Your task to perform on an android device: Search for the best rated 4k tvs on Walmart. Image 0: 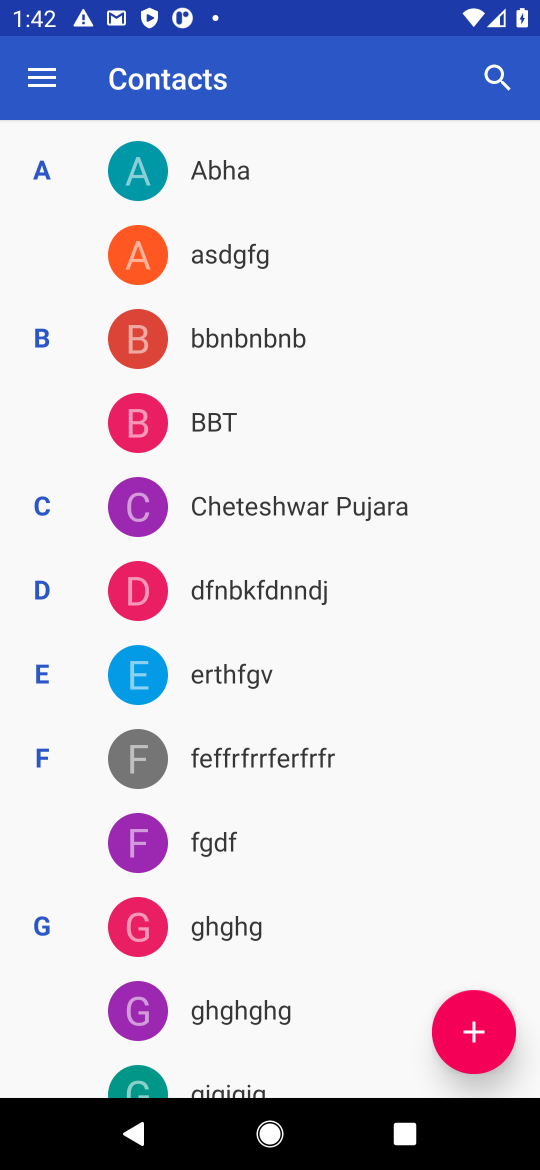
Step 0: press home button
Your task to perform on an android device: Search for the best rated 4k tvs on Walmart. Image 1: 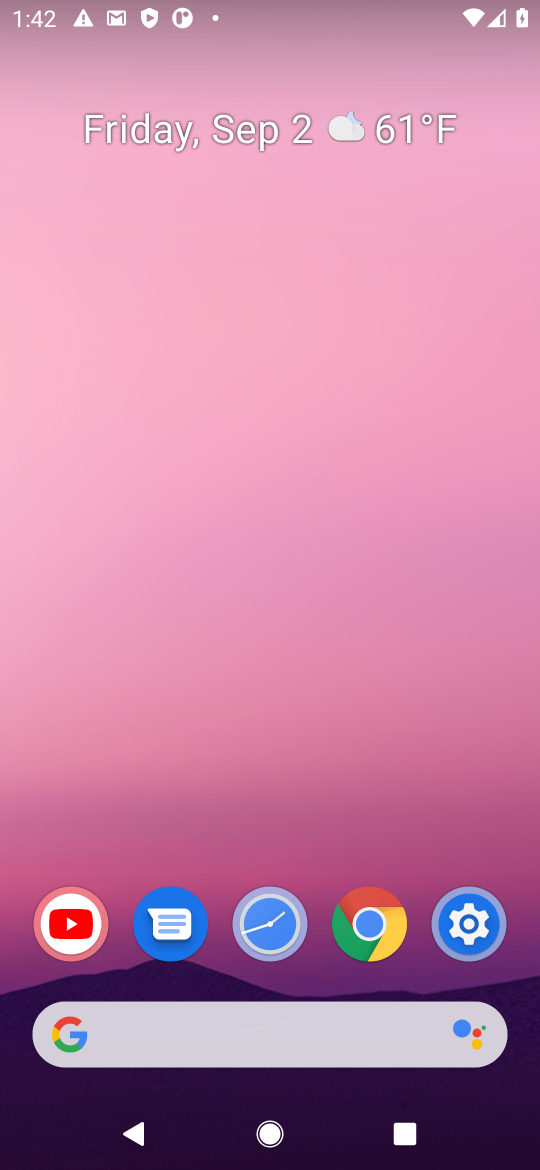
Step 1: click (398, 1033)
Your task to perform on an android device: Search for the best rated 4k tvs on Walmart. Image 2: 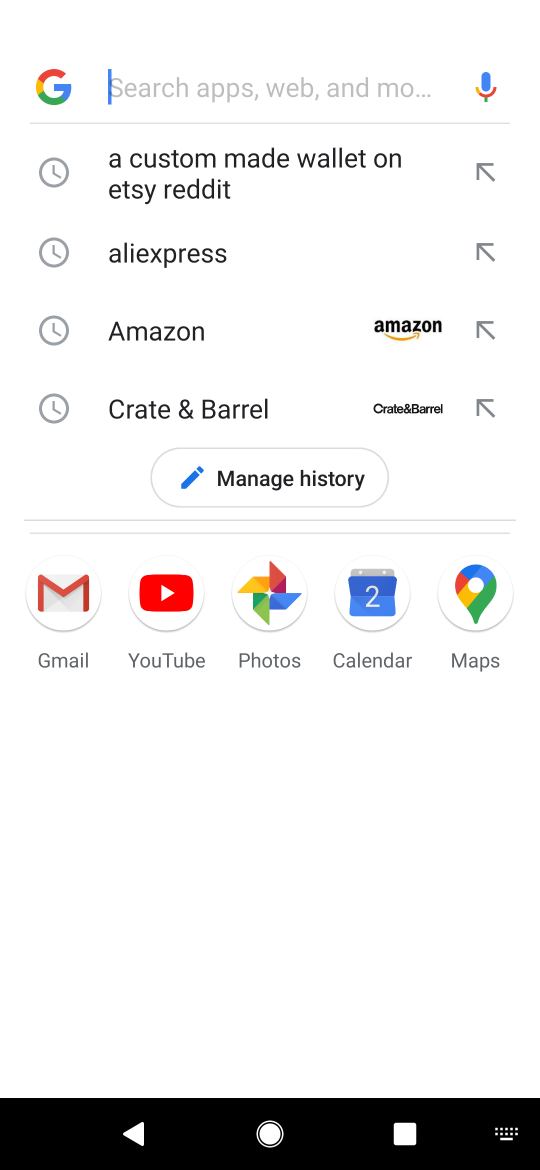
Step 2: press enter
Your task to perform on an android device: Search for the best rated 4k tvs on Walmart. Image 3: 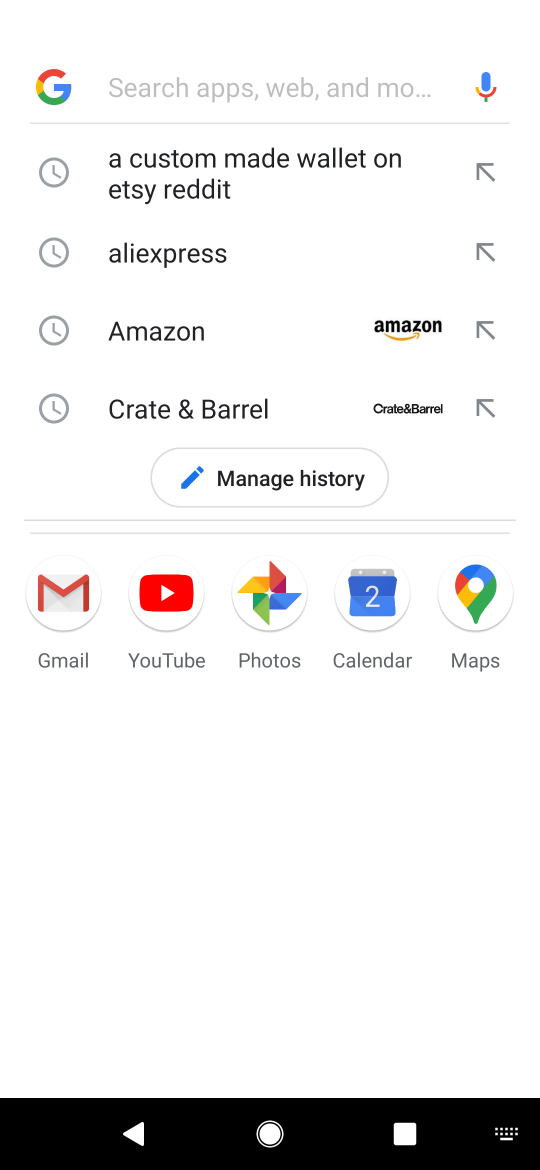
Step 3: type "walmart"
Your task to perform on an android device: Search for the best rated 4k tvs on Walmart. Image 4: 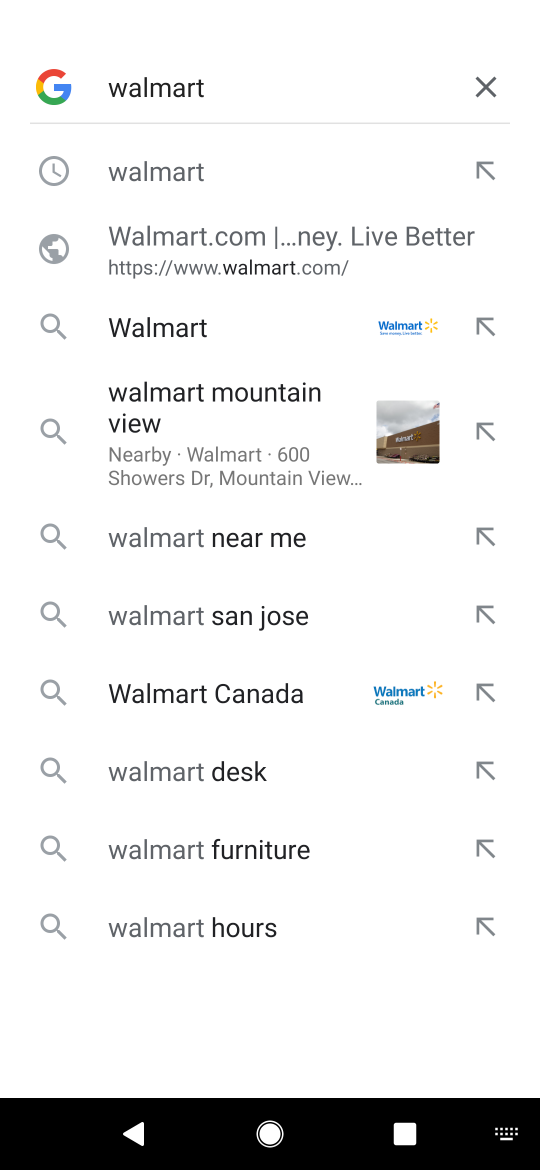
Step 4: click (197, 324)
Your task to perform on an android device: Search for the best rated 4k tvs on Walmart. Image 5: 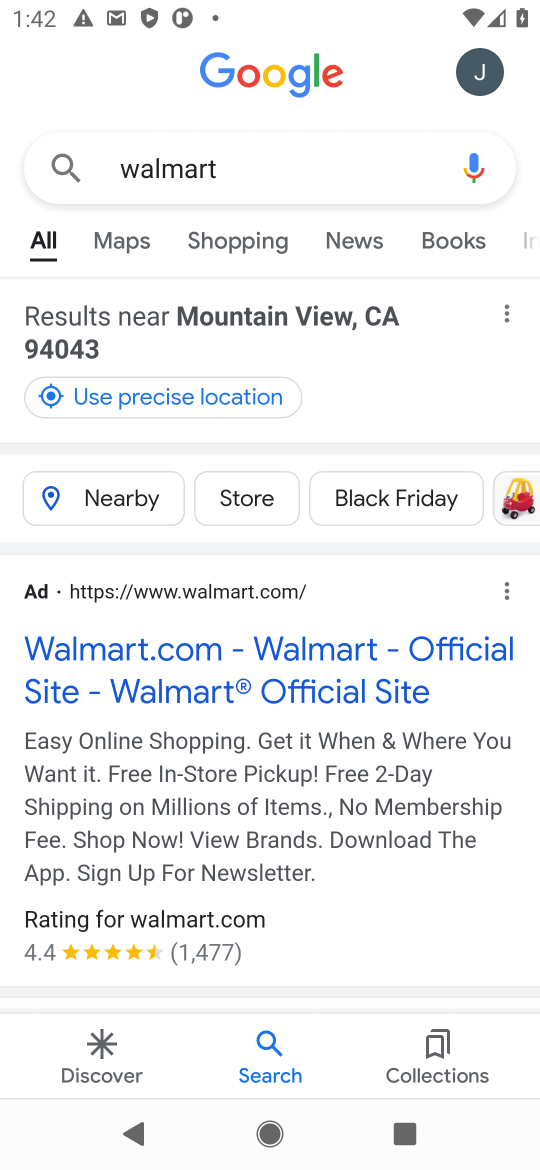
Step 5: click (290, 669)
Your task to perform on an android device: Search for the best rated 4k tvs on Walmart. Image 6: 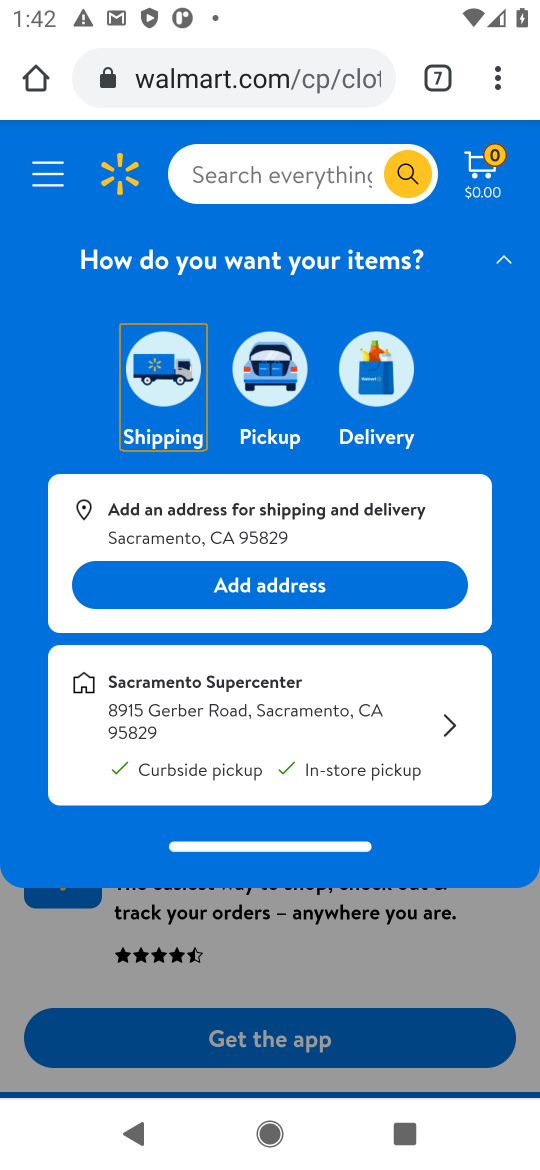
Step 6: click (281, 165)
Your task to perform on an android device: Search for the best rated 4k tvs on Walmart. Image 7: 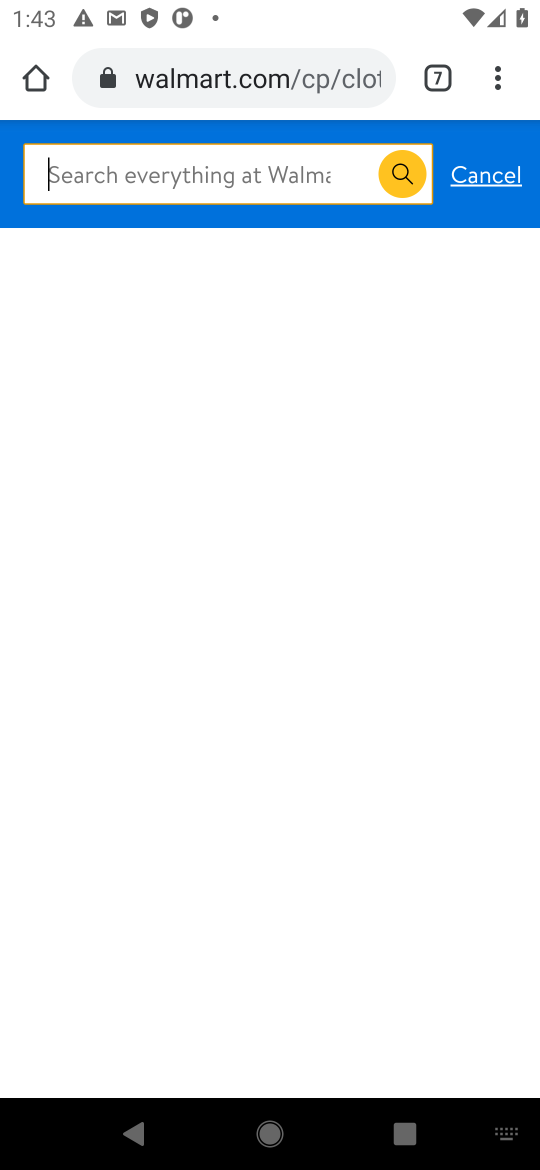
Step 7: type "4k tvs"
Your task to perform on an android device: Search for the best rated 4k tvs on Walmart. Image 8: 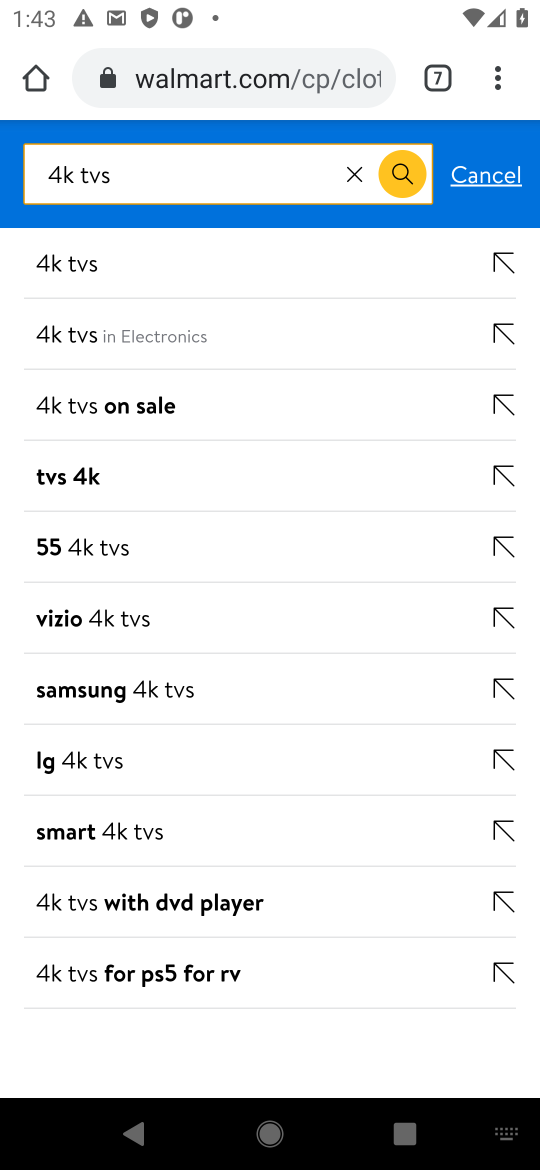
Step 8: click (140, 265)
Your task to perform on an android device: Search for the best rated 4k tvs on Walmart. Image 9: 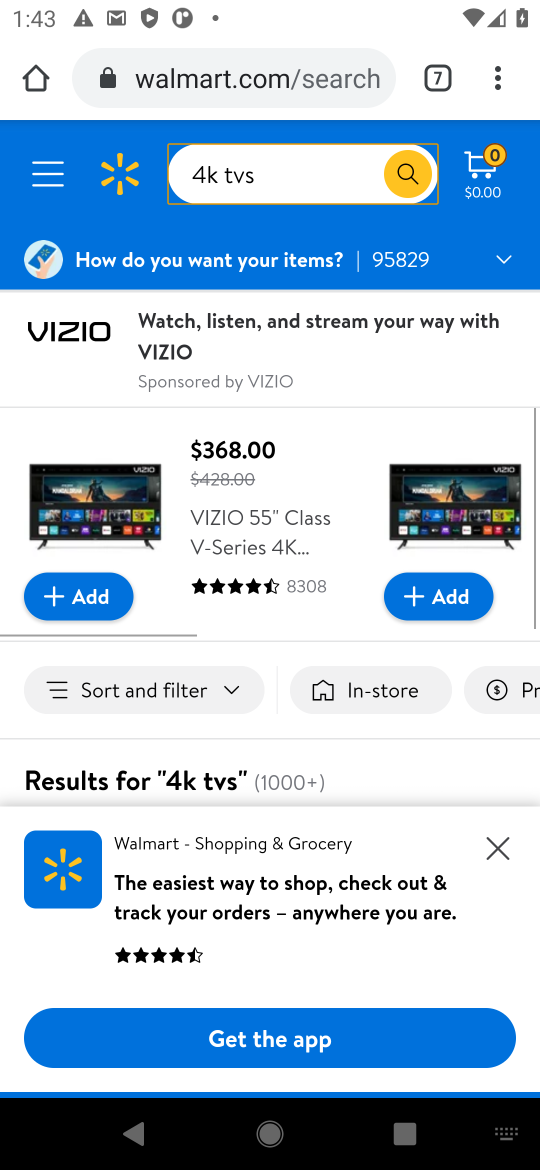
Step 9: click (498, 848)
Your task to perform on an android device: Search for the best rated 4k tvs on Walmart. Image 10: 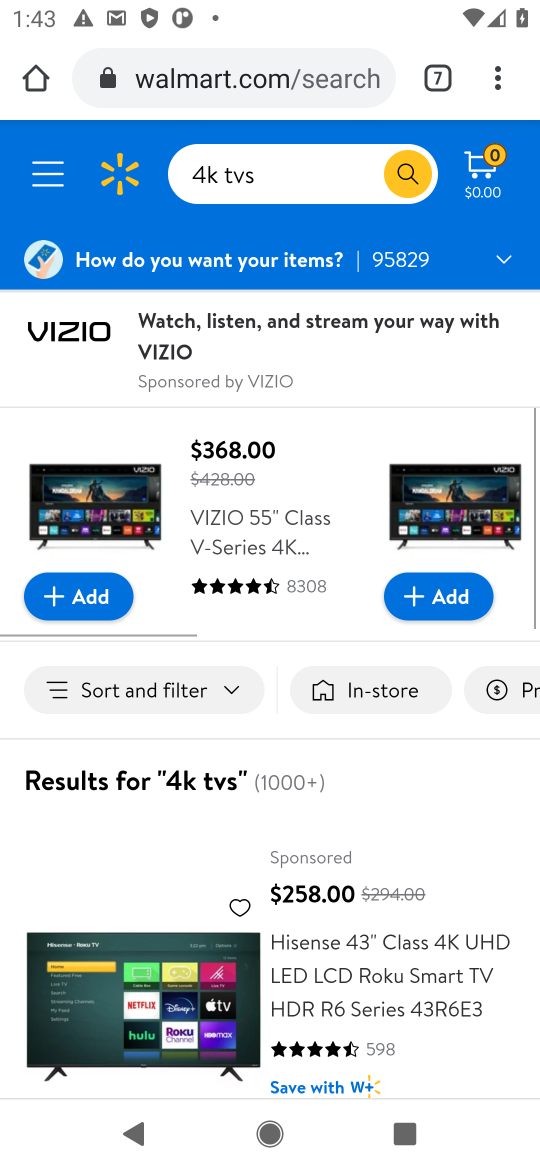
Step 10: task complete